Your task to perform on an android device: turn vacation reply on in the gmail app Image 0: 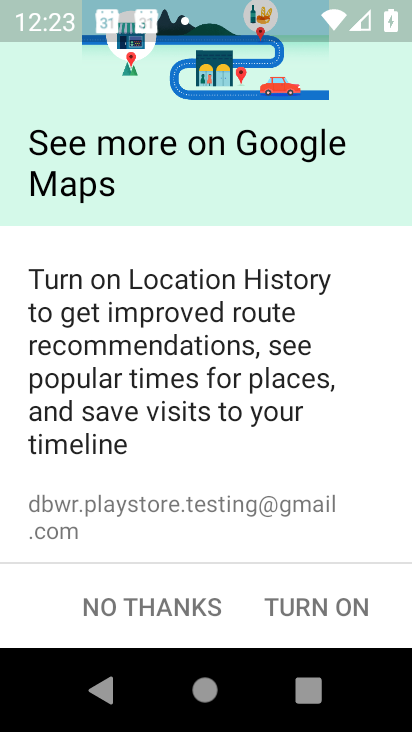
Step 0: press home button
Your task to perform on an android device: turn vacation reply on in the gmail app Image 1: 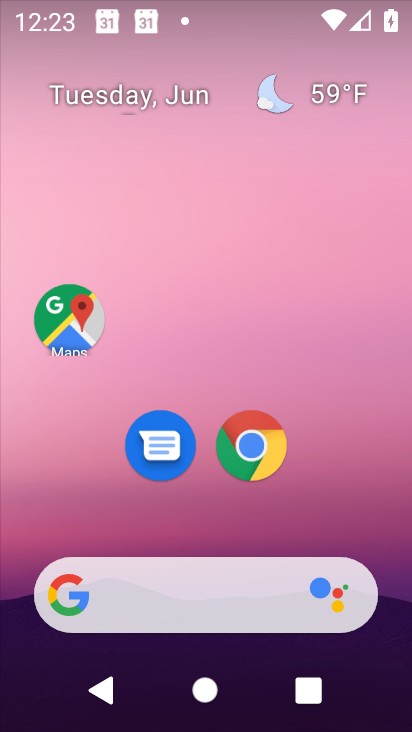
Step 1: drag from (162, 452) to (296, 8)
Your task to perform on an android device: turn vacation reply on in the gmail app Image 2: 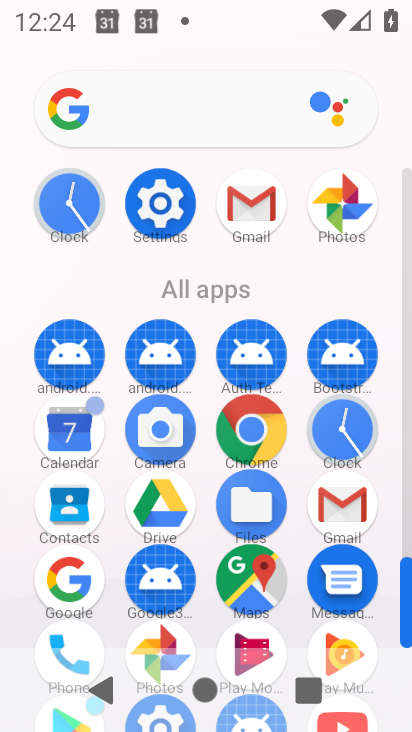
Step 2: click (244, 198)
Your task to perform on an android device: turn vacation reply on in the gmail app Image 3: 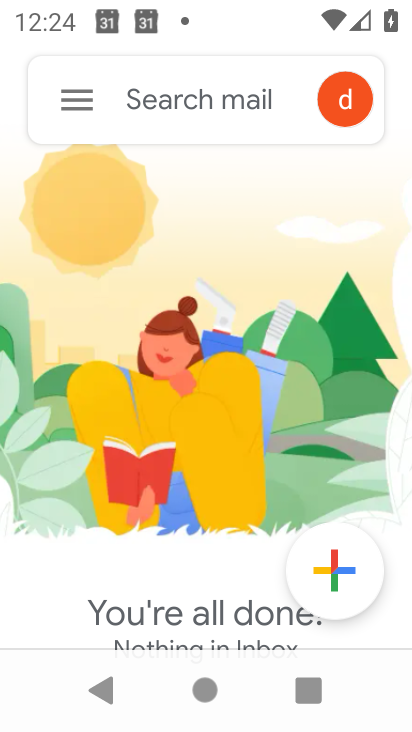
Step 3: click (70, 92)
Your task to perform on an android device: turn vacation reply on in the gmail app Image 4: 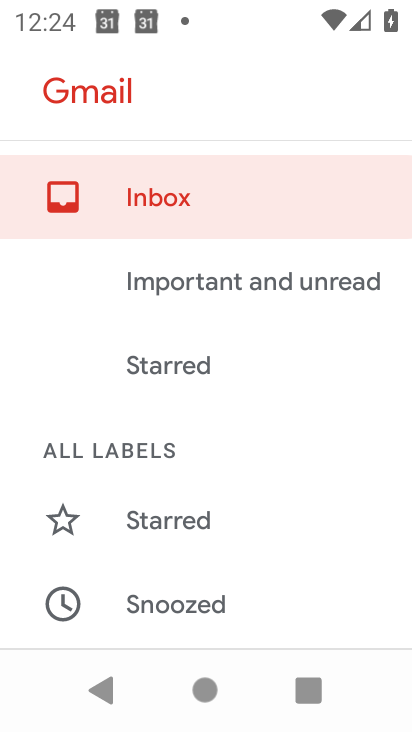
Step 4: drag from (128, 556) to (139, 43)
Your task to perform on an android device: turn vacation reply on in the gmail app Image 5: 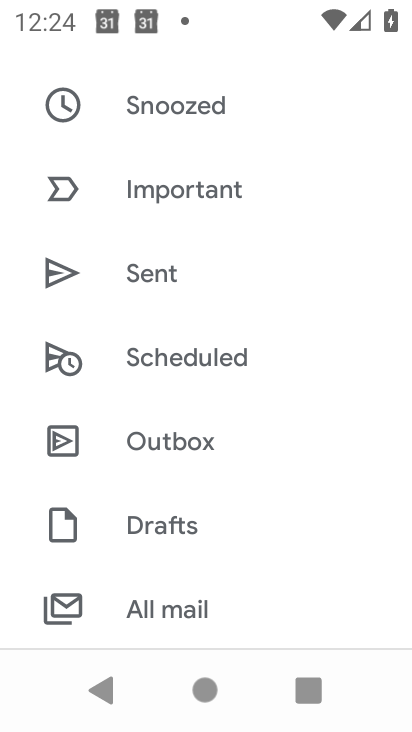
Step 5: drag from (152, 588) to (202, 29)
Your task to perform on an android device: turn vacation reply on in the gmail app Image 6: 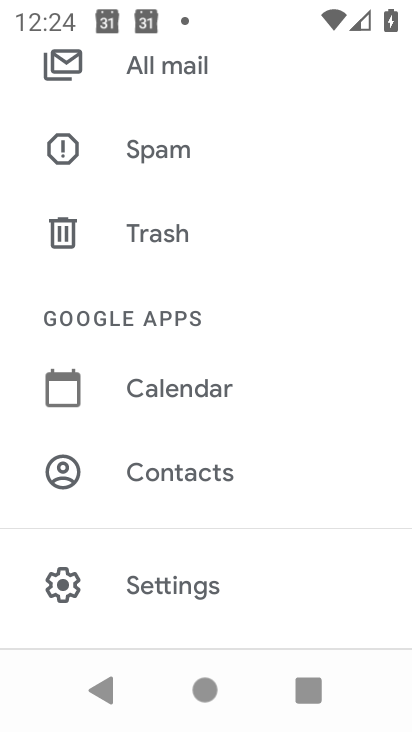
Step 6: drag from (174, 550) to (145, 74)
Your task to perform on an android device: turn vacation reply on in the gmail app Image 7: 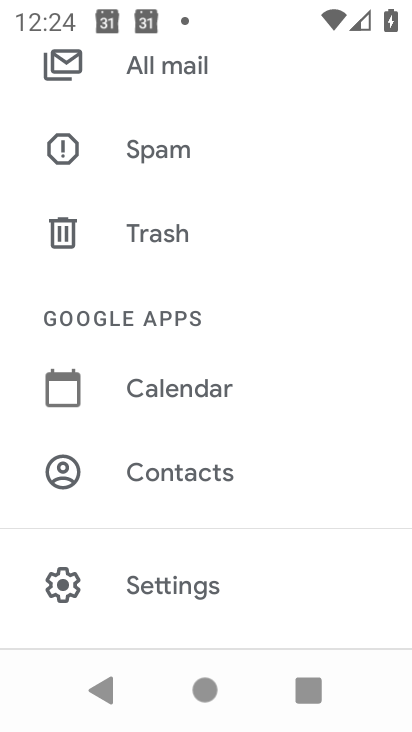
Step 7: click (103, 564)
Your task to perform on an android device: turn vacation reply on in the gmail app Image 8: 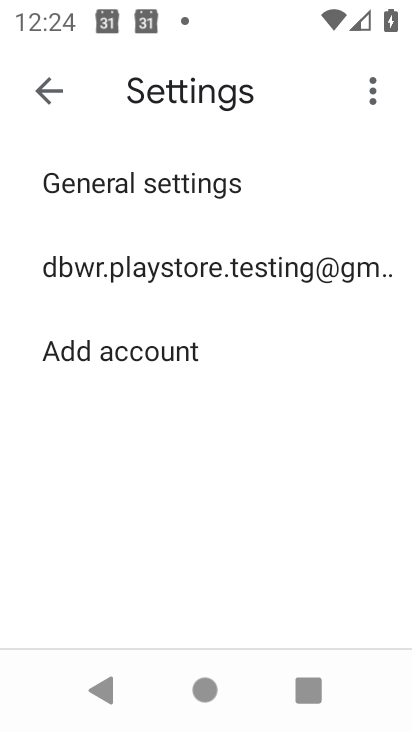
Step 8: click (170, 240)
Your task to perform on an android device: turn vacation reply on in the gmail app Image 9: 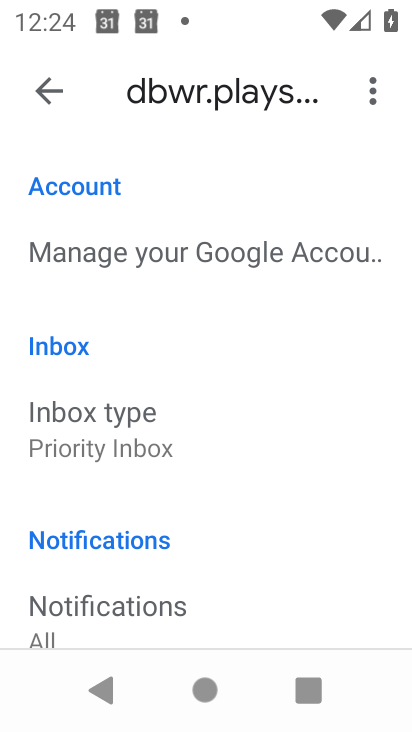
Step 9: drag from (119, 577) to (126, 105)
Your task to perform on an android device: turn vacation reply on in the gmail app Image 10: 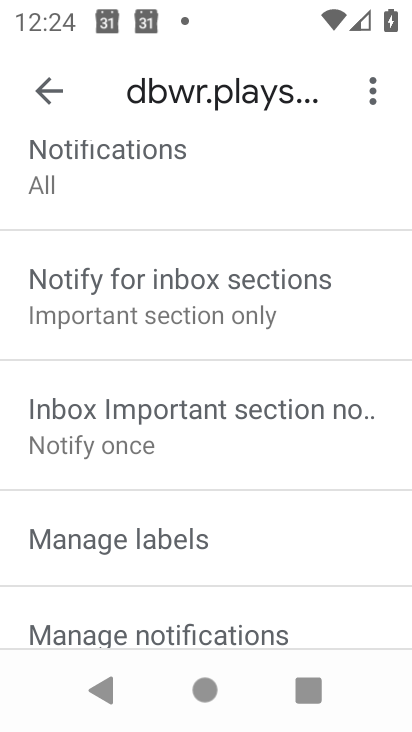
Step 10: drag from (106, 577) to (135, 176)
Your task to perform on an android device: turn vacation reply on in the gmail app Image 11: 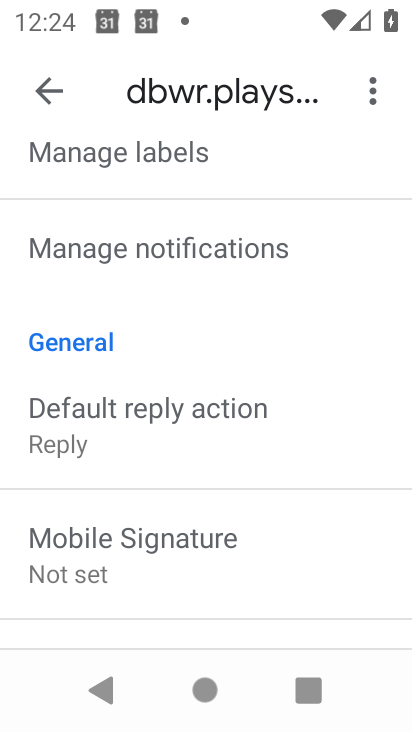
Step 11: drag from (110, 611) to (105, 85)
Your task to perform on an android device: turn vacation reply on in the gmail app Image 12: 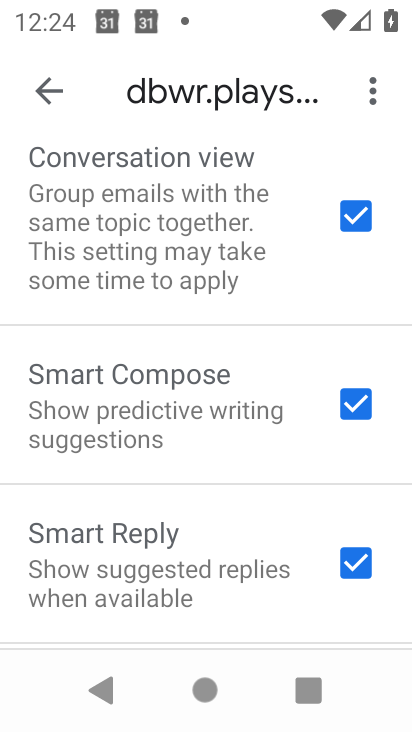
Step 12: drag from (246, 535) to (228, 187)
Your task to perform on an android device: turn vacation reply on in the gmail app Image 13: 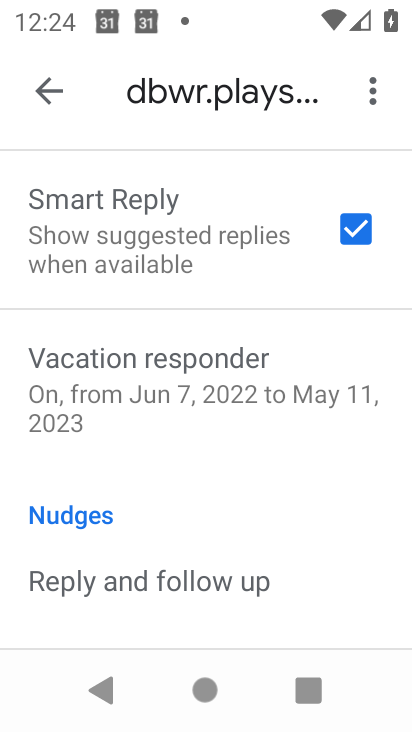
Step 13: click (138, 378)
Your task to perform on an android device: turn vacation reply on in the gmail app Image 14: 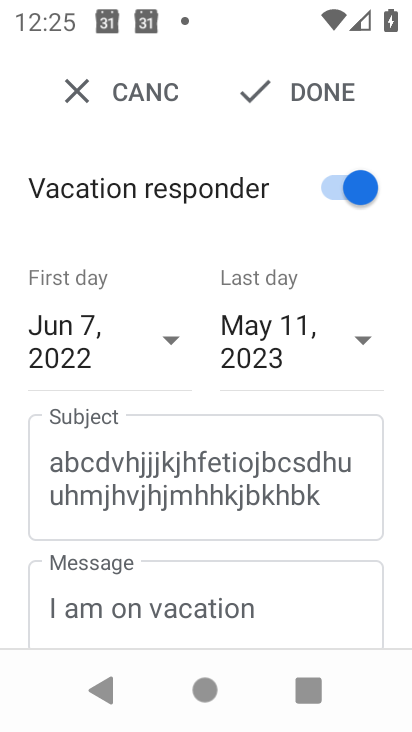
Step 14: click (309, 61)
Your task to perform on an android device: turn vacation reply on in the gmail app Image 15: 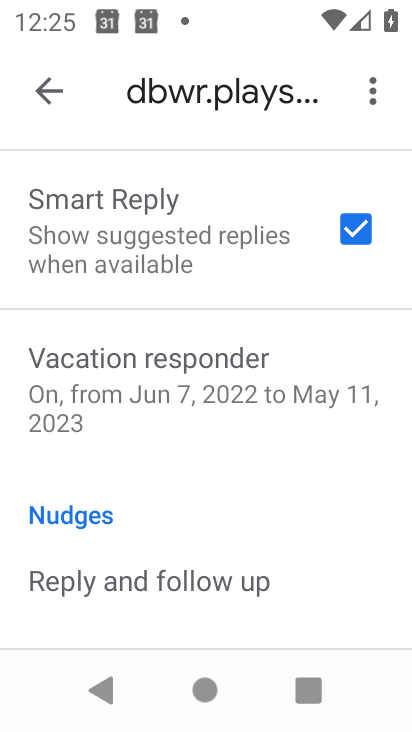
Step 15: task complete